Your task to perform on an android device: Show me popular games on the Play Store Image 0: 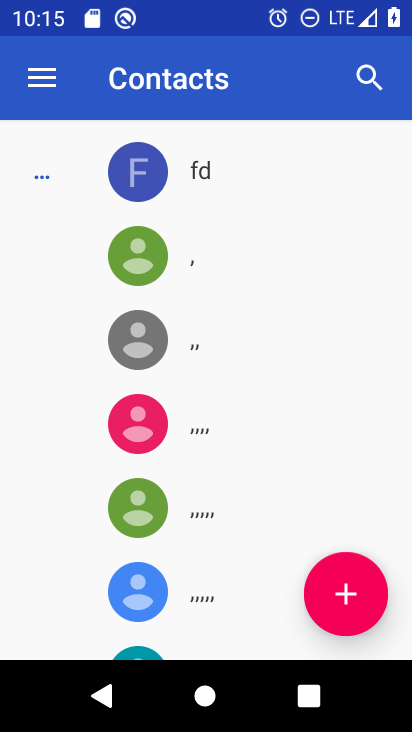
Step 0: press home button
Your task to perform on an android device: Show me popular games on the Play Store Image 1: 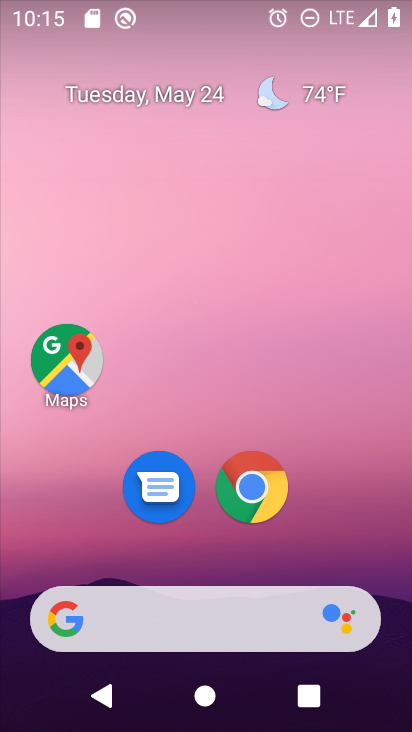
Step 1: drag from (361, 589) to (348, 6)
Your task to perform on an android device: Show me popular games on the Play Store Image 2: 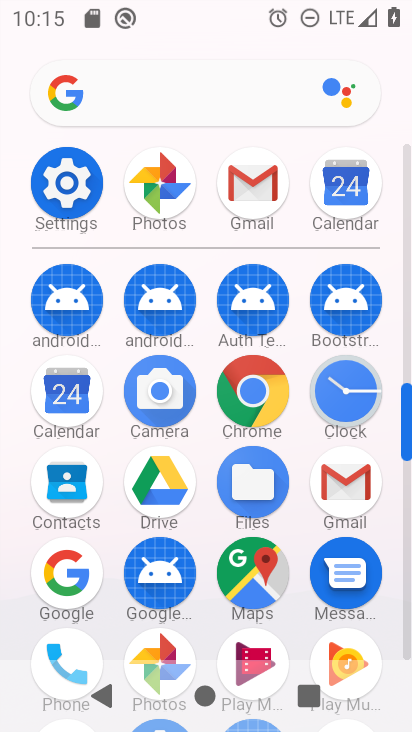
Step 2: drag from (403, 416) to (404, 367)
Your task to perform on an android device: Show me popular games on the Play Store Image 3: 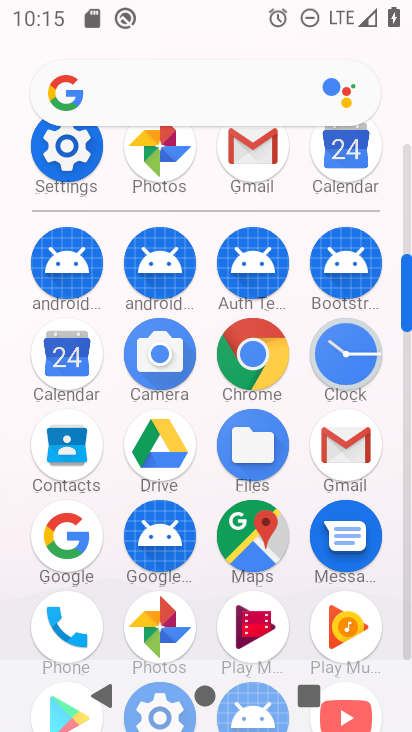
Step 3: drag from (403, 453) to (405, 410)
Your task to perform on an android device: Show me popular games on the Play Store Image 4: 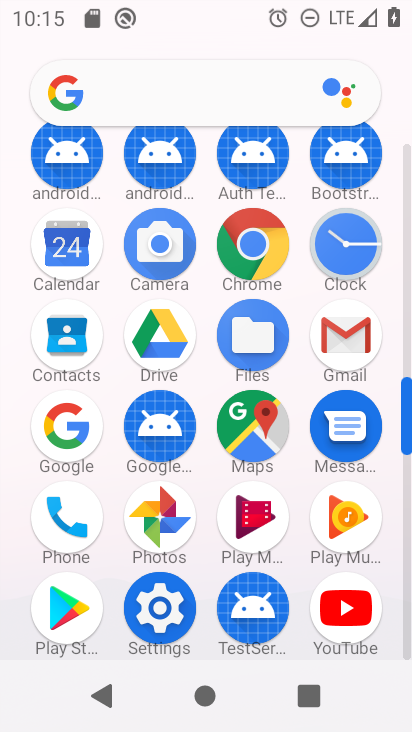
Step 4: click (66, 623)
Your task to perform on an android device: Show me popular games on the Play Store Image 5: 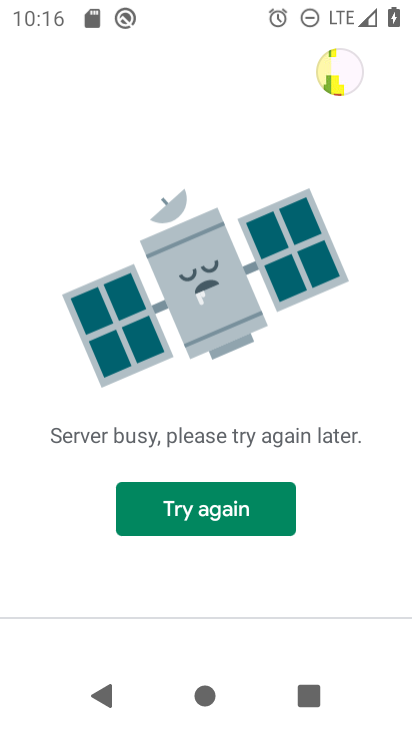
Step 5: drag from (271, 540) to (244, 286)
Your task to perform on an android device: Show me popular games on the Play Store Image 6: 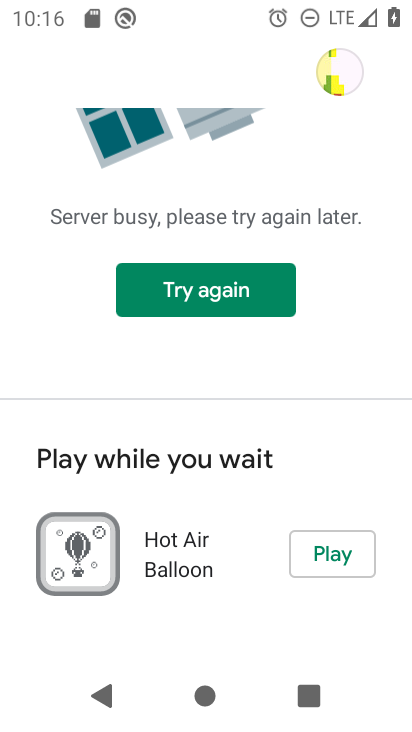
Step 6: click (243, 287)
Your task to perform on an android device: Show me popular games on the Play Store Image 7: 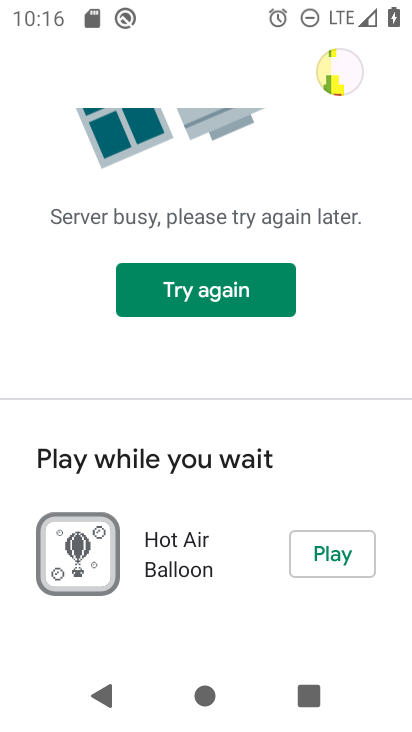
Step 7: task complete